Your task to perform on an android device: allow cookies in the chrome app Image 0: 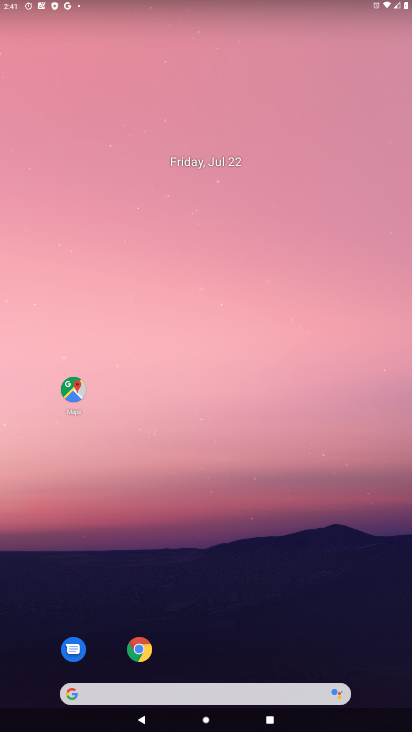
Step 0: drag from (308, 642) to (268, 94)
Your task to perform on an android device: allow cookies in the chrome app Image 1: 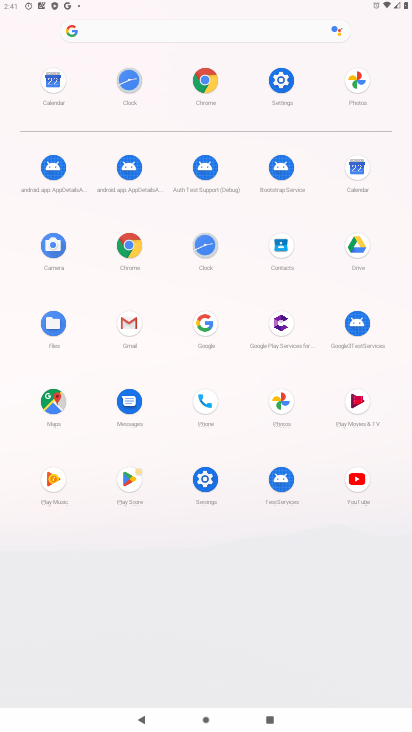
Step 1: click (130, 246)
Your task to perform on an android device: allow cookies in the chrome app Image 2: 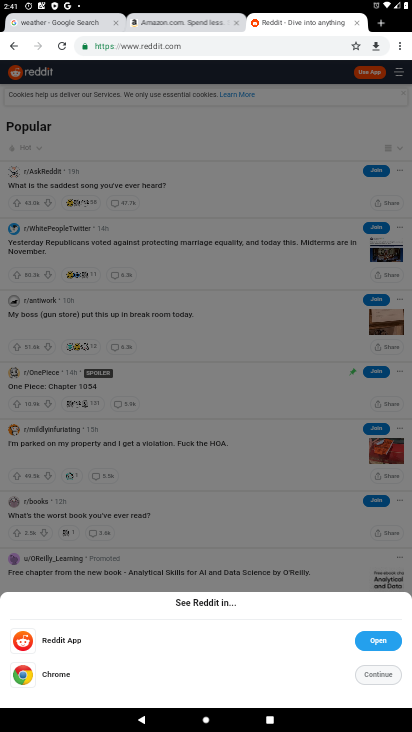
Step 2: drag from (401, 45) to (302, 339)
Your task to perform on an android device: allow cookies in the chrome app Image 3: 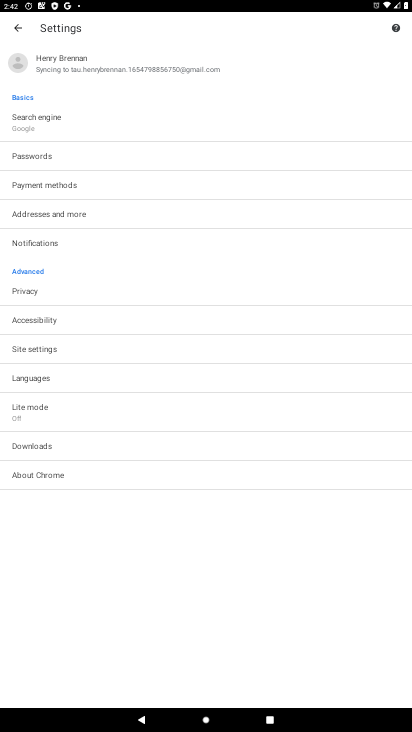
Step 3: click (47, 355)
Your task to perform on an android device: allow cookies in the chrome app Image 4: 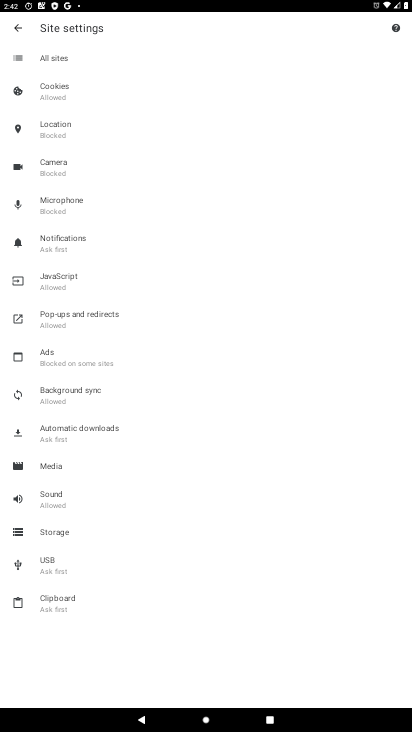
Step 4: click (61, 95)
Your task to perform on an android device: allow cookies in the chrome app Image 5: 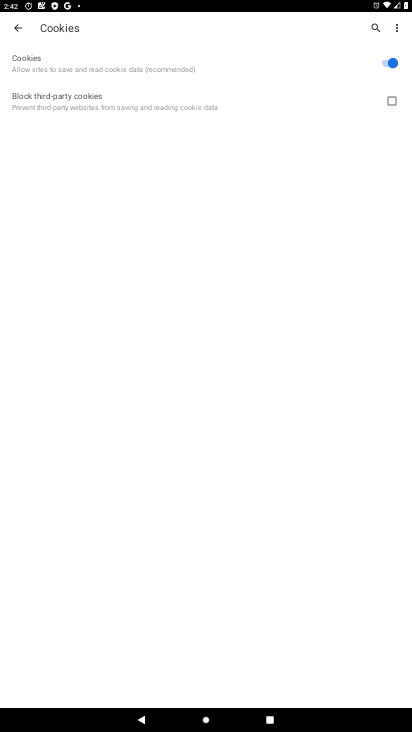
Step 5: task complete